Your task to perform on an android device: Open Google Chrome Image 0: 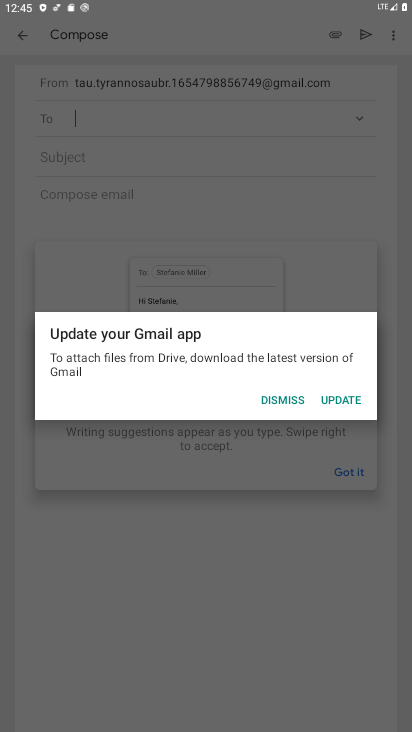
Step 0: press home button
Your task to perform on an android device: Open Google Chrome Image 1: 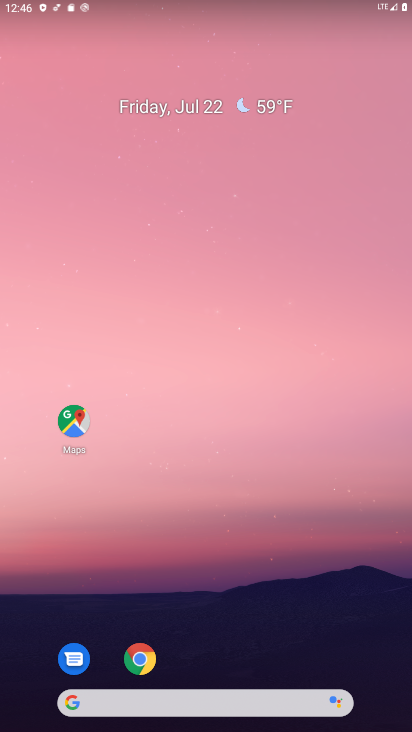
Step 1: click (138, 648)
Your task to perform on an android device: Open Google Chrome Image 2: 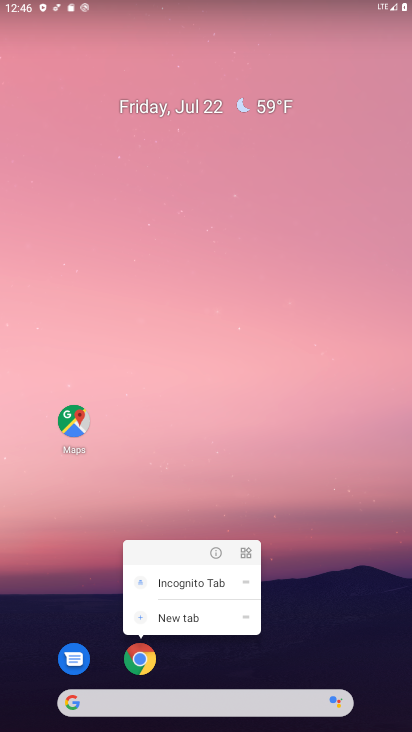
Step 2: click (156, 664)
Your task to perform on an android device: Open Google Chrome Image 3: 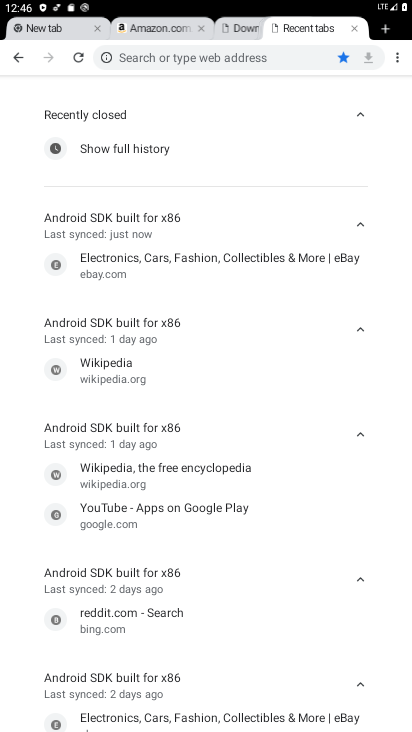
Step 3: task complete